Your task to perform on an android device: Search for pizza restaurants on Maps Image 0: 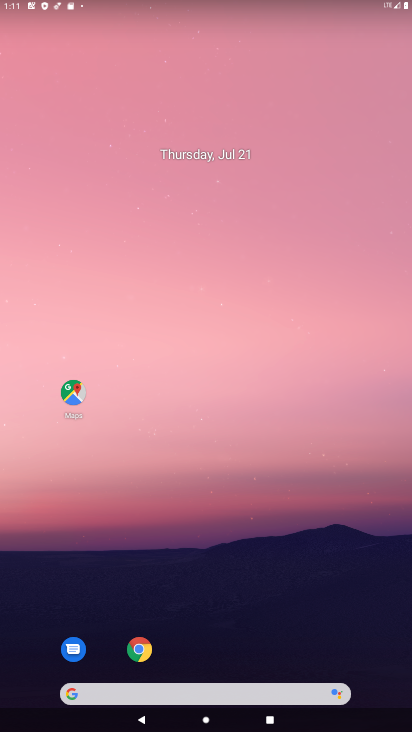
Step 0: drag from (231, 678) to (206, 74)
Your task to perform on an android device: Search for pizza restaurants on Maps Image 1: 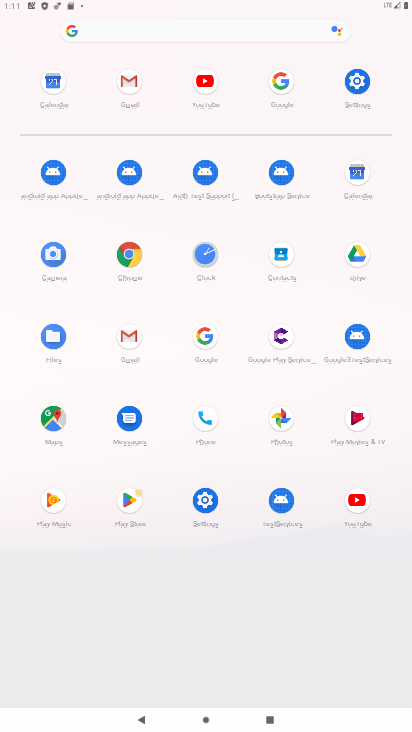
Step 1: click (45, 426)
Your task to perform on an android device: Search for pizza restaurants on Maps Image 2: 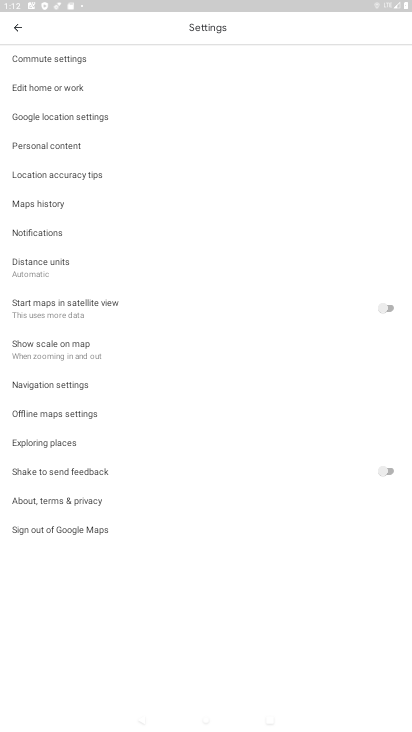
Step 2: click (20, 30)
Your task to perform on an android device: Search for pizza restaurants on Maps Image 3: 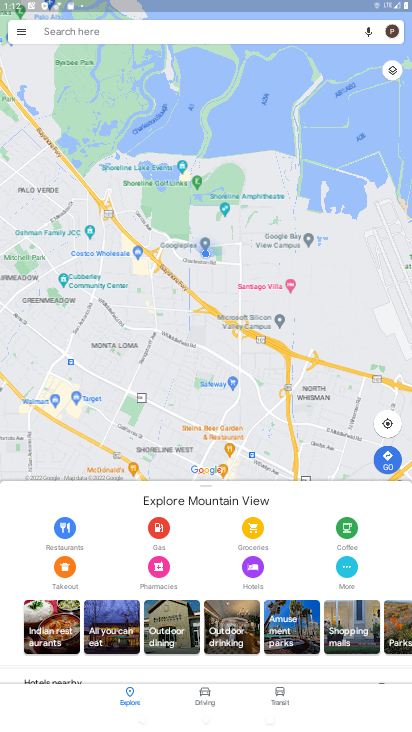
Step 3: click (163, 29)
Your task to perform on an android device: Search for pizza restaurants on Maps Image 4: 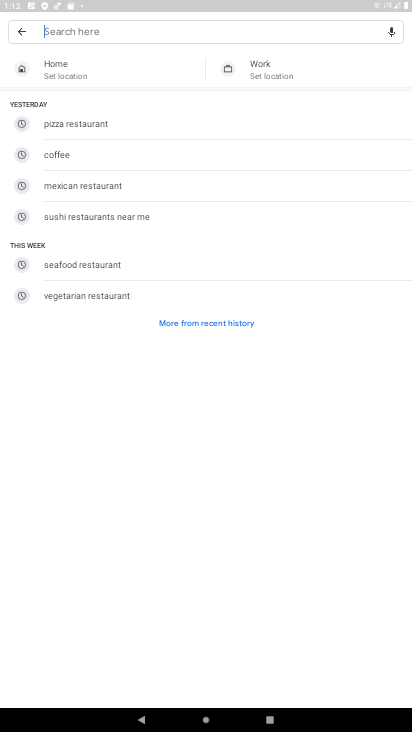
Step 4: type "pizza restaurants "
Your task to perform on an android device: Search for pizza restaurants on Maps Image 5: 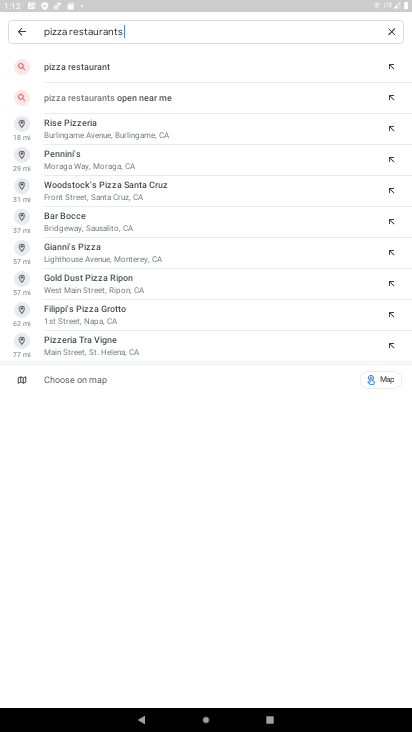
Step 5: click (53, 67)
Your task to perform on an android device: Search for pizza restaurants on Maps Image 6: 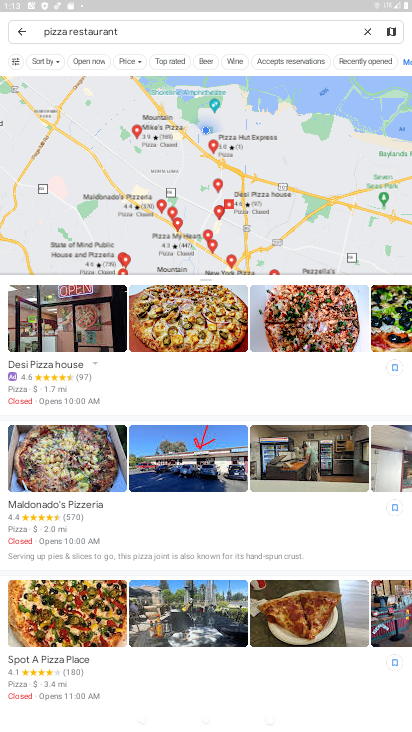
Step 6: task complete